Your task to perform on an android device: Go to Android settings Image 0: 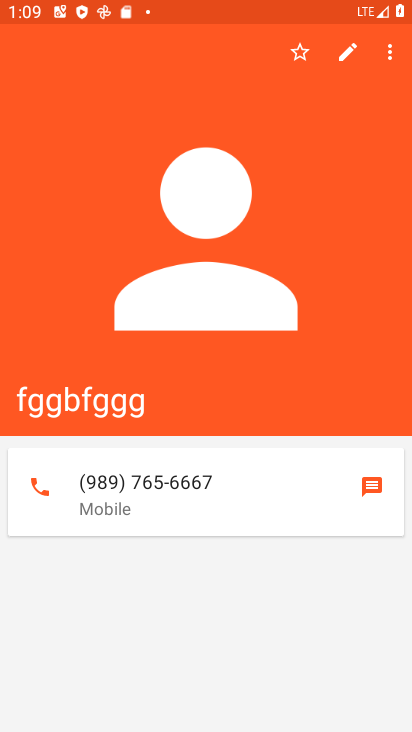
Step 0: press home button
Your task to perform on an android device: Go to Android settings Image 1: 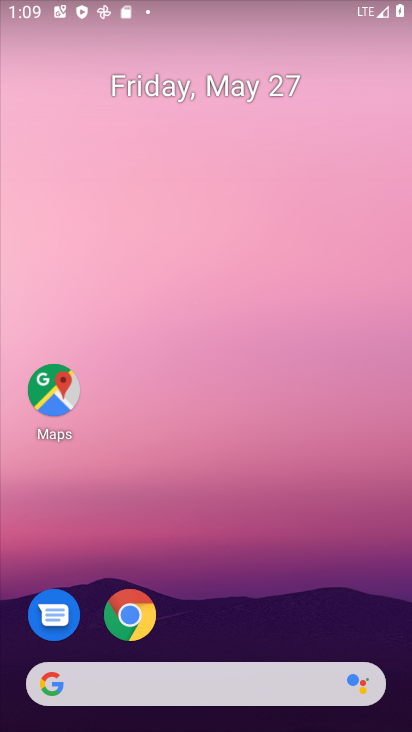
Step 1: drag from (269, 681) to (271, 168)
Your task to perform on an android device: Go to Android settings Image 2: 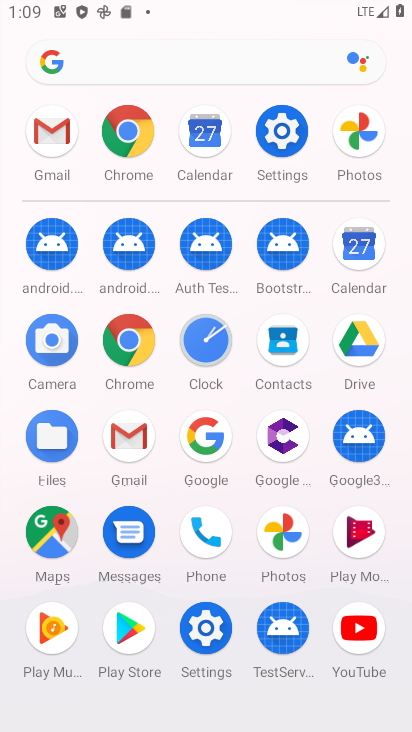
Step 2: click (300, 131)
Your task to perform on an android device: Go to Android settings Image 3: 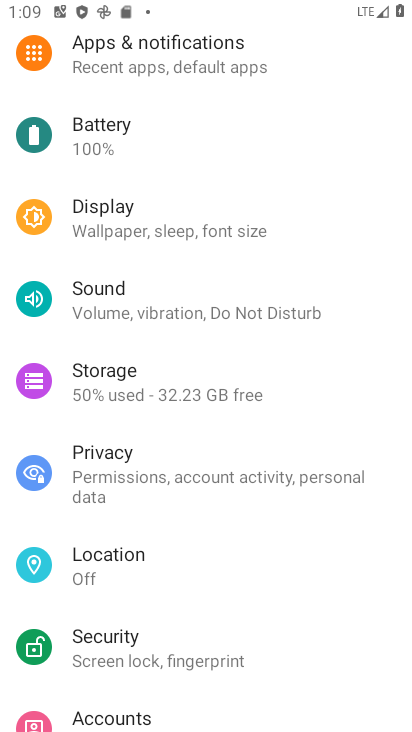
Step 3: drag from (111, 654) to (296, 2)
Your task to perform on an android device: Go to Android settings Image 4: 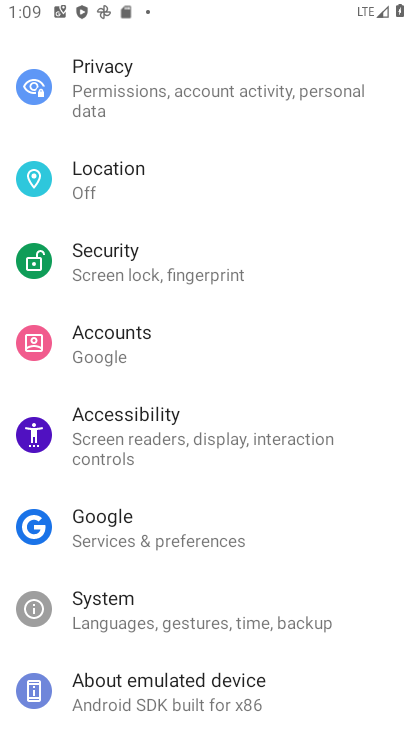
Step 4: click (124, 678)
Your task to perform on an android device: Go to Android settings Image 5: 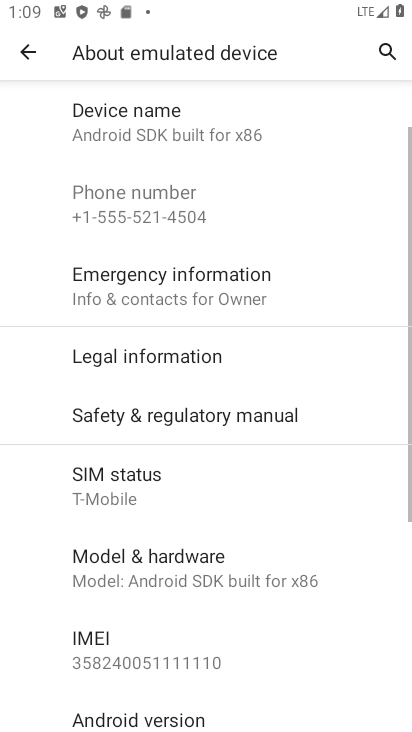
Step 5: drag from (210, 635) to (211, 365)
Your task to perform on an android device: Go to Android settings Image 6: 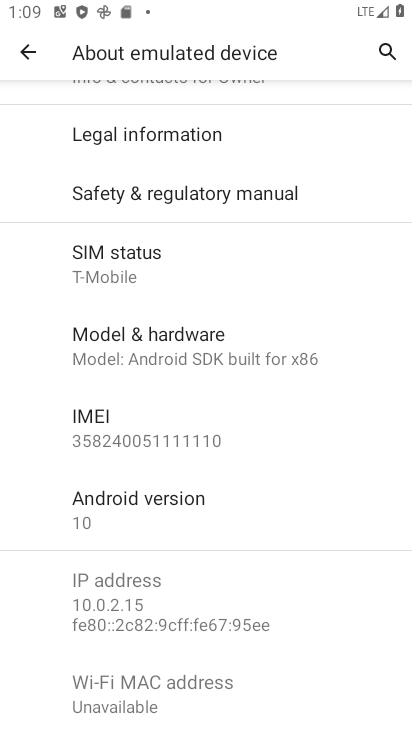
Step 6: click (167, 504)
Your task to perform on an android device: Go to Android settings Image 7: 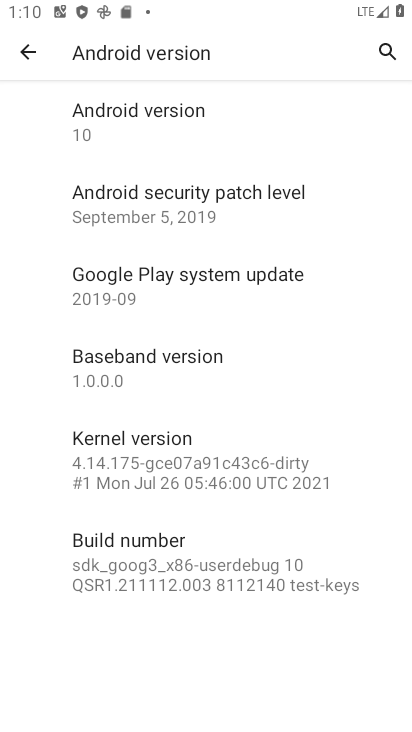
Step 7: task complete